Your task to perform on an android device: When is my next meeting? Image 0: 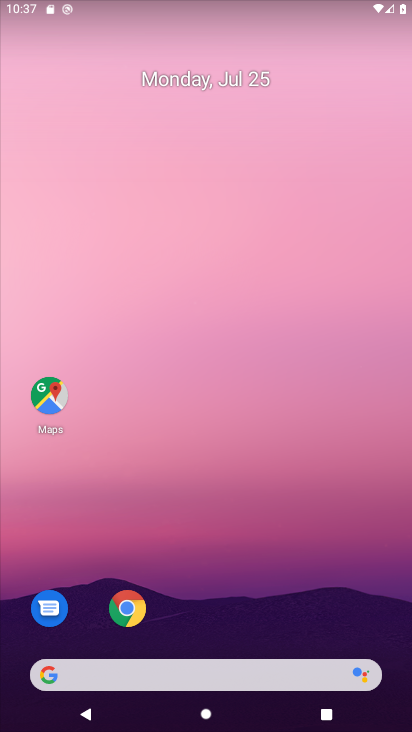
Step 0: drag from (268, 269) to (268, 193)
Your task to perform on an android device: When is my next meeting? Image 1: 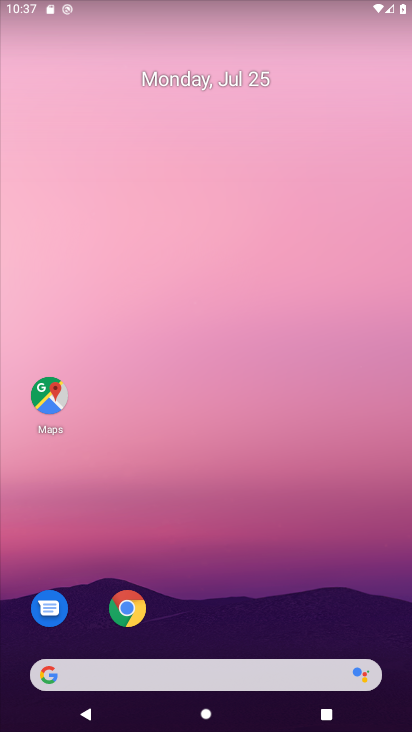
Step 1: drag from (254, 594) to (190, 55)
Your task to perform on an android device: When is my next meeting? Image 2: 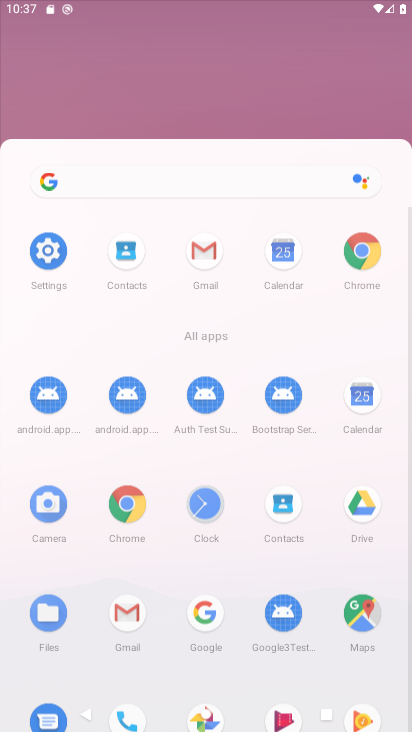
Step 2: drag from (239, 440) to (239, 56)
Your task to perform on an android device: When is my next meeting? Image 3: 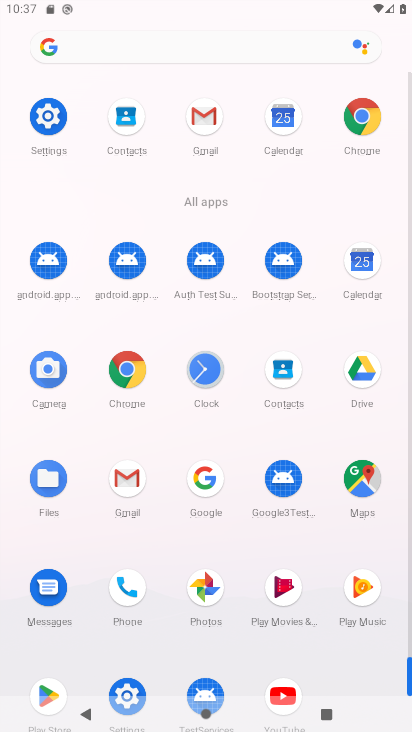
Step 3: click (364, 268)
Your task to perform on an android device: When is my next meeting? Image 4: 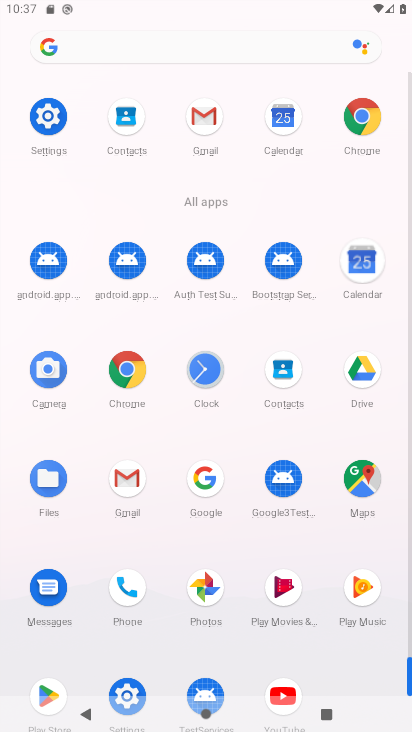
Step 4: click (362, 266)
Your task to perform on an android device: When is my next meeting? Image 5: 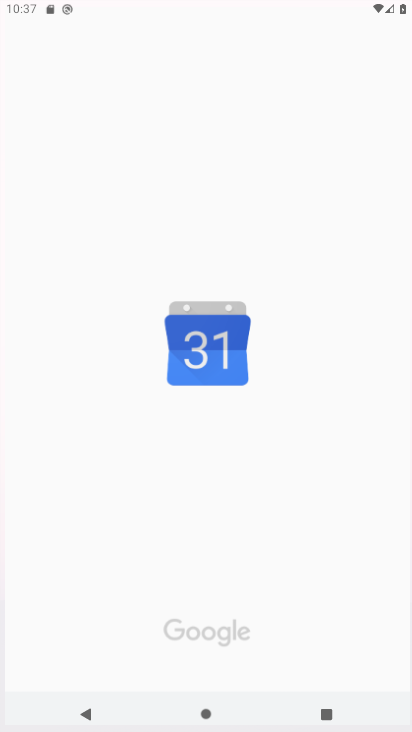
Step 5: click (364, 266)
Your task to perform on an android device: When is my next meeting? Image 6: 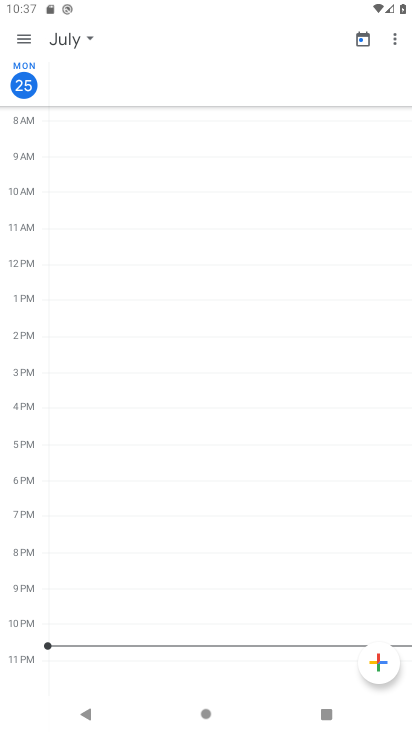
Step 6: click (93, 40)
Your task to perform on an android device: When is my next meeting? Image 7: 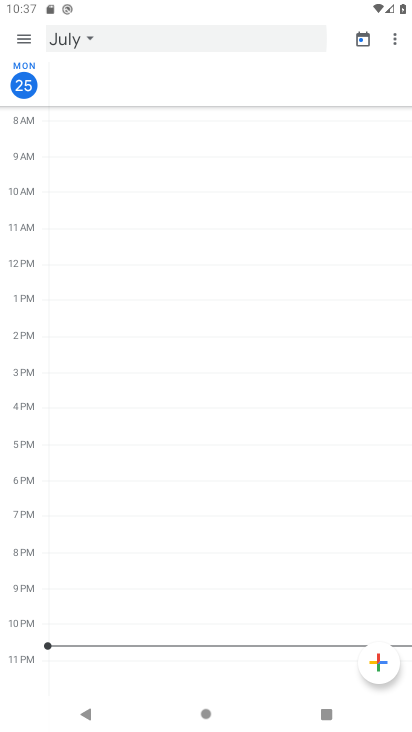
Step 7: click (93, 40)
Your task to perform on an android device: When is my next meeting? Image 8: 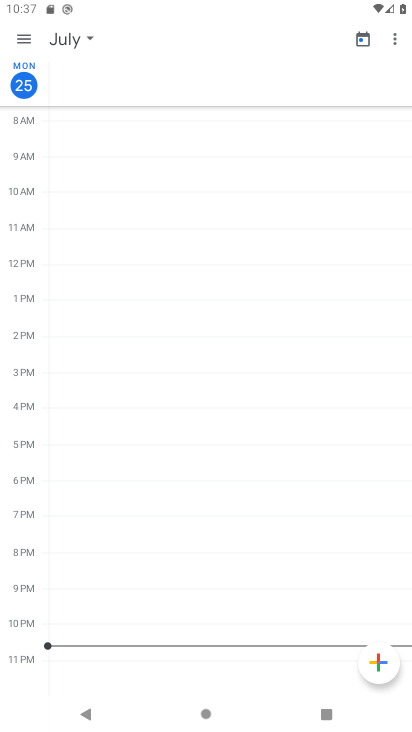
Step 8: click (94, 38)
Your task to perform on an android device: When is my next meeting? Image 9: 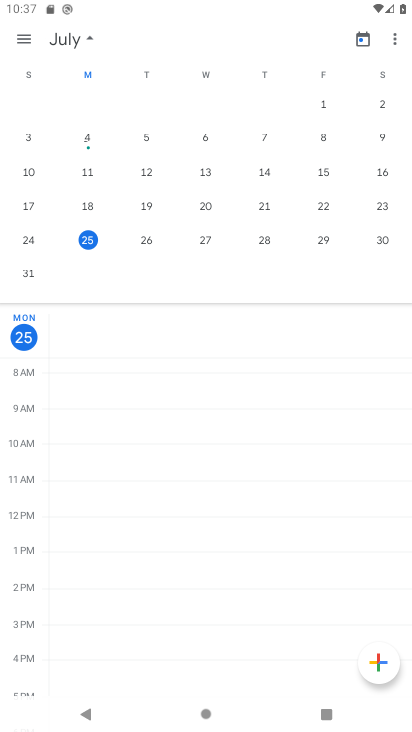
Step 9: click (325, 237)
Your task to perform on an android device: When is my next meeting? Image 10: 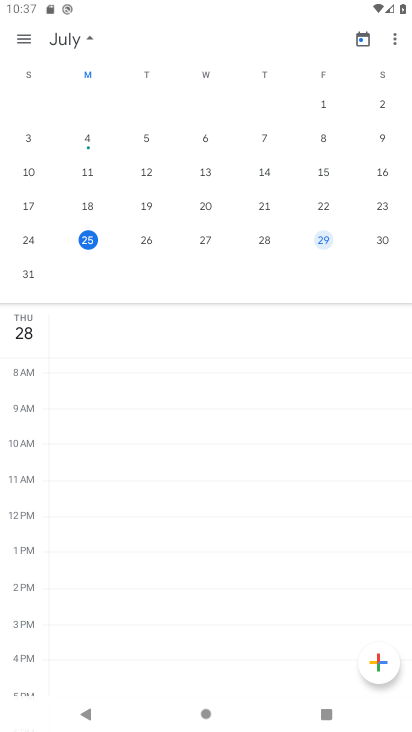
Step 10: click (318, 232)
Your task to perform on an android device: When is my next meeting? Image 11: 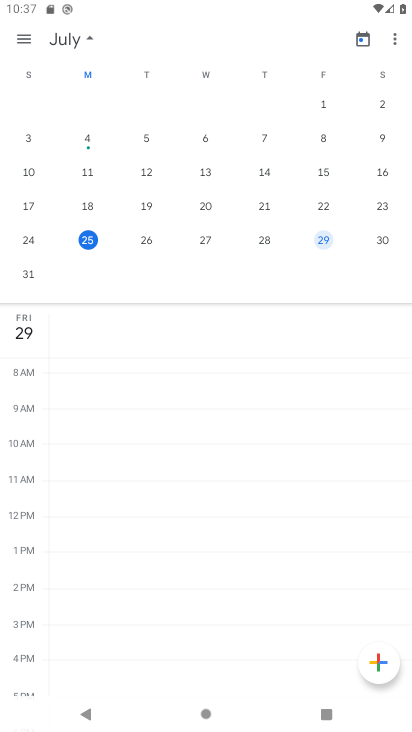
Step 11: click (316, 230)
Your task to perform on an android device: When is my next meeting? Image 12: 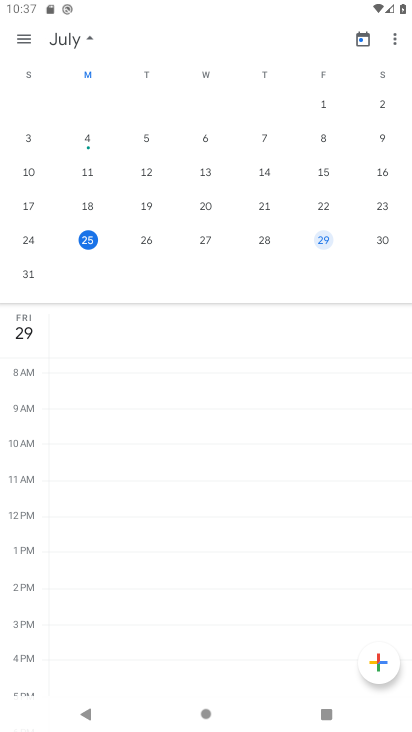
Step 12: task complete